Your task to perform on an android device: star an email in the gmail app Image 0: 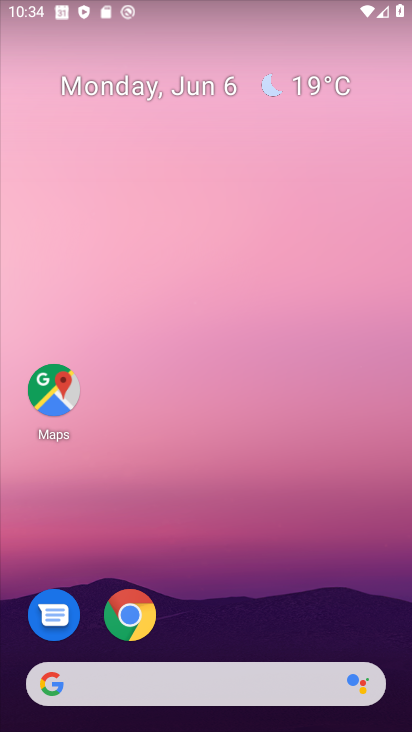
Step 0: drag from (264, 640) to (219, 61)
Your task to perform on an android device: star an email in the gmail app Image 1: 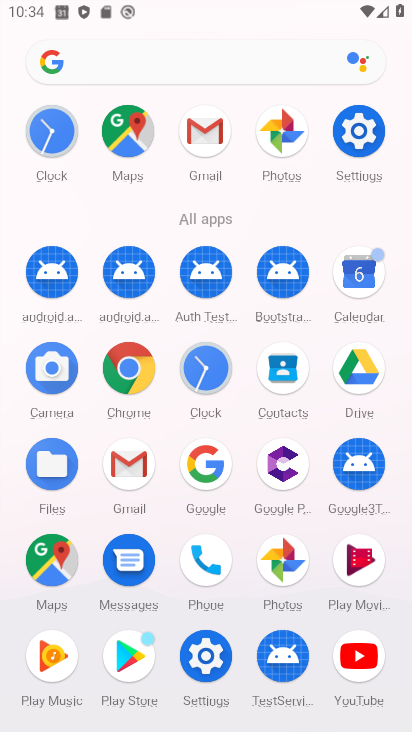
Step 1: click (207, 162)
Your task to perform on an android device: star an email in the gmail app Image 2: 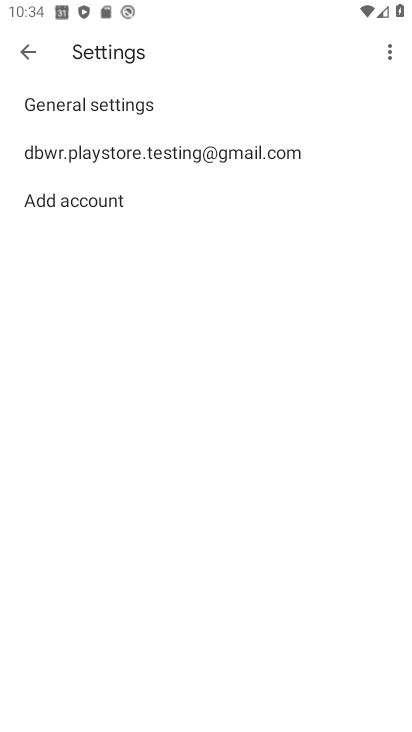
Step 2: click (34, 65)
Your task to perform on an android device: star an email in the gmail app Image 3: 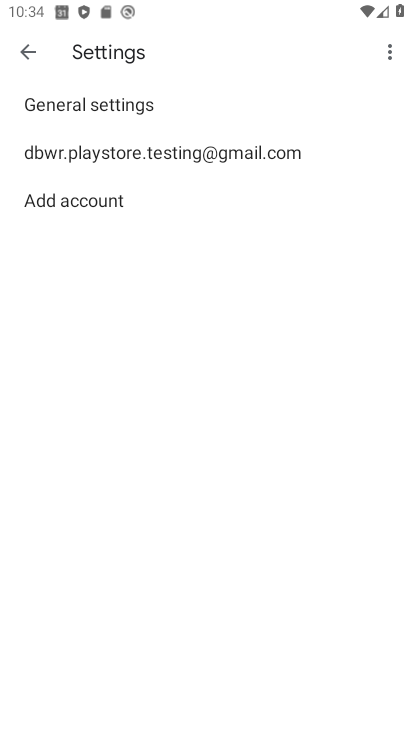
Step 3: click (34, 65)
Your task to perform on an android device: star an email in the gmail app Image 4: 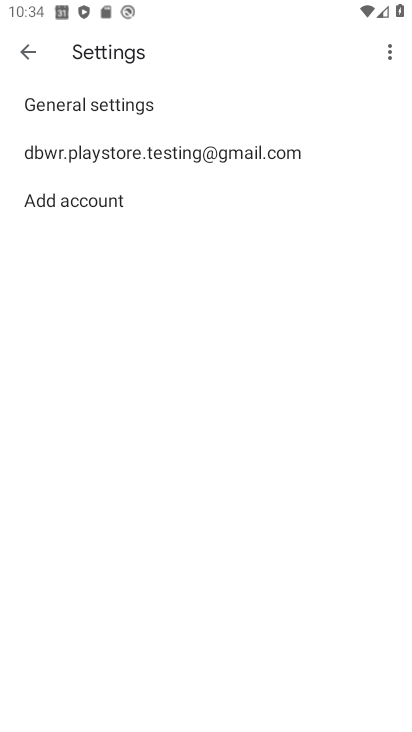
Step 4: click (37, 46)
Your task to perform on an android device: star an email in the gmail app Image 5: 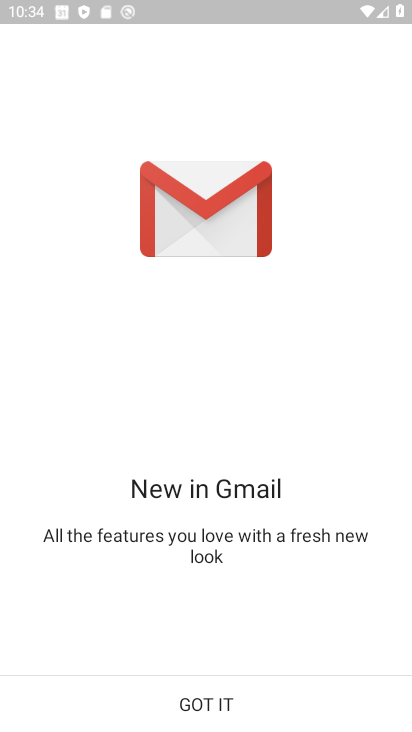
Step 5: click (189, 690)
Your task to perform on an android device: star an email in the gmail app Image 6: 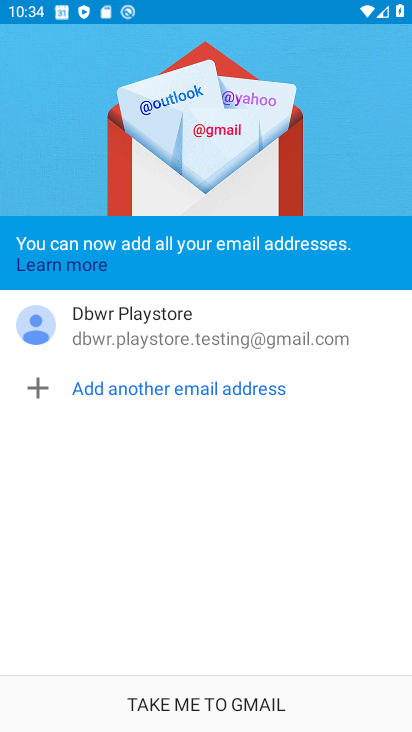
Step 6: click (263, 690)
Your task to perform on an android device: star an email in the gmail app Image 7: 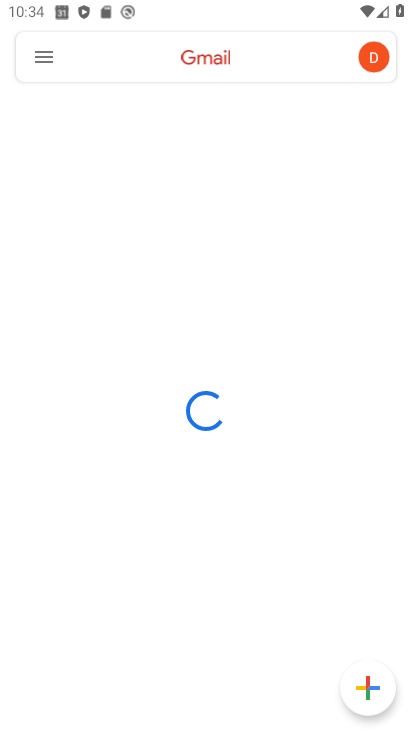
Step 7: task complete